Your task to perform on an android device: Install the Uber app Image 0: 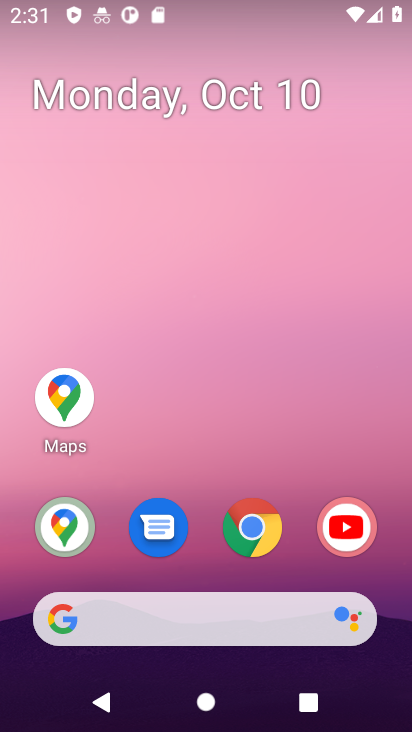
Step 0: drag from (153, 625) to (203, 46)
Your task to perform on an android device: Install the Uber app Image 1: 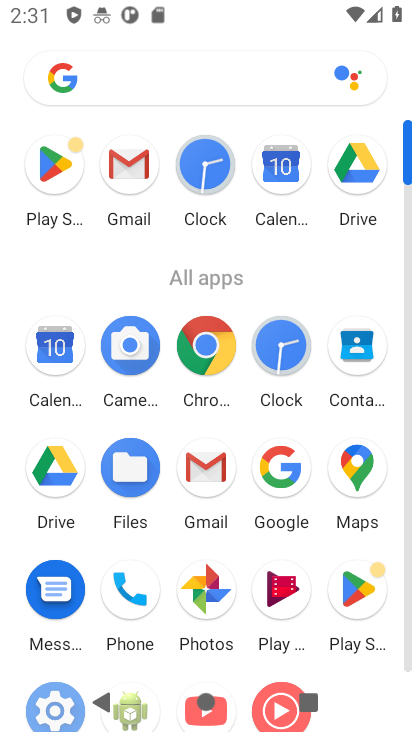
Step 1: click (358, 596)
Your task to perform on an android device: Install the Uber app Image 2: 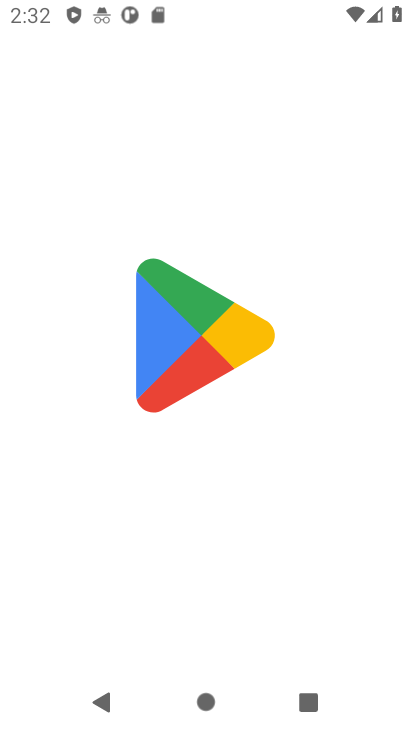
Step 2: task complete